Your task to perform on an android device: remove spam from my inbox in the gmail app Image 0: 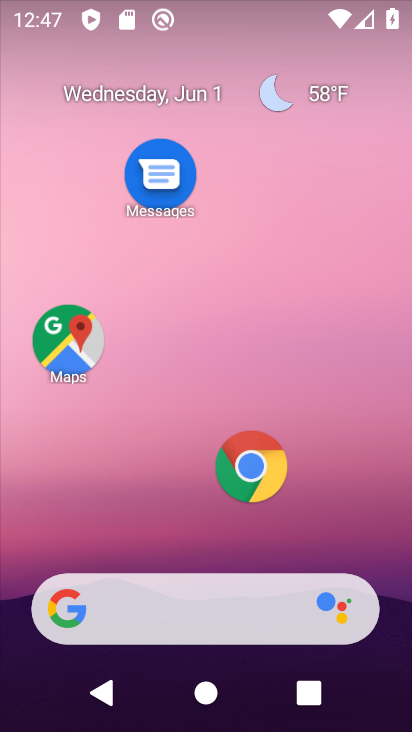
Step 0: drag from (161, 721) to (168, 166)
Your task to perform on an android device: remove spam from my inbox in the gmail app Image 1: 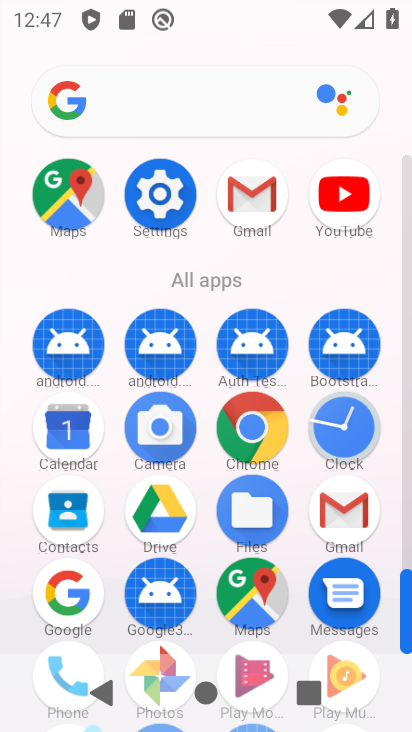
Step 1: click (343, 513)
Your task to perform on an android device: remove spam from my inbox in the gmail app Image 2: 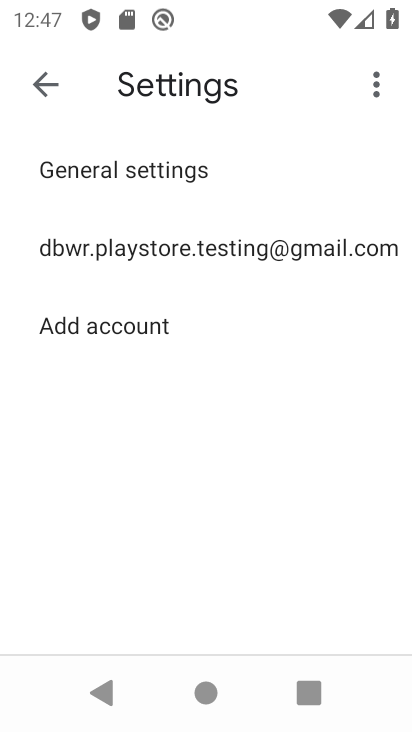
Step 2: click (185, 255)
Your task to perform on an android device: remove spam from my inbox in the gmail app Image 3: 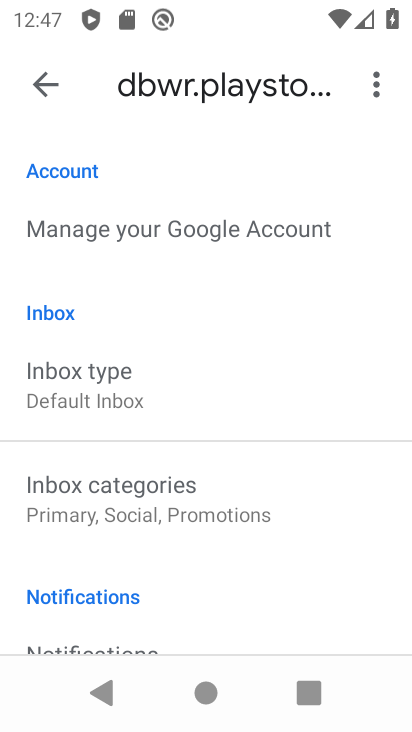
Step 3: click (47, 94)
Your task to perform on an android device: remove spam from my inbox in the gmail app Image 4: 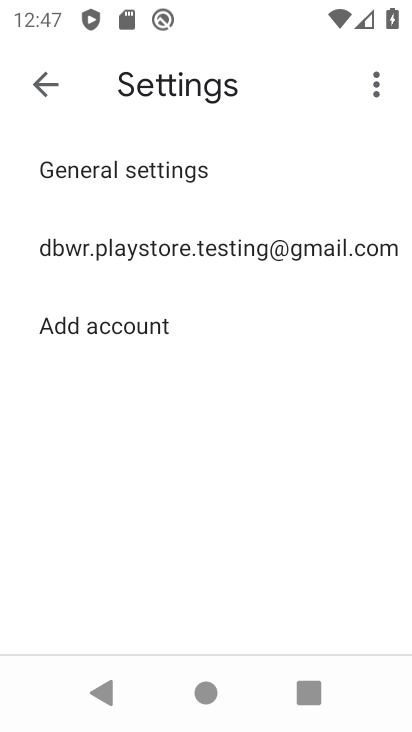
Step 4: click (46, 78)
Your task to perform on an android device: remove spam from my inbox in the gmail app Image 5: 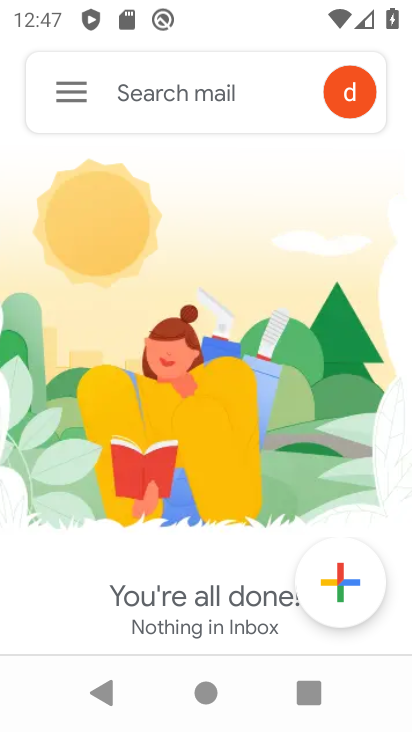
Step 5: click (90, 99)
Your task to perform on an android device: remove spam from my inbox in the gmail app Image 6: 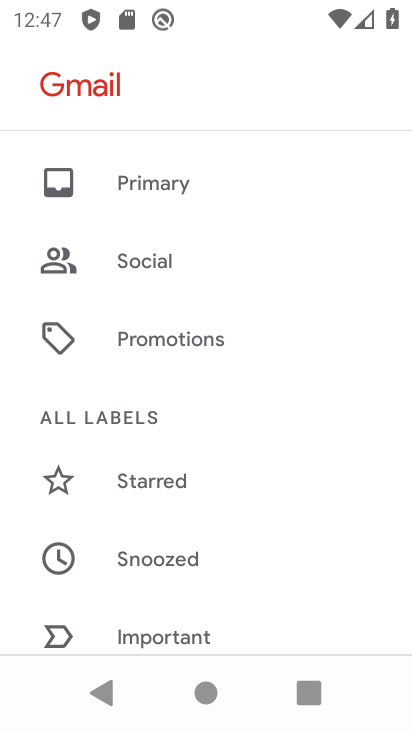
Step 6: drag from (233, 551) to (287, 185)
Your task to perform on an android device: remove spam from my inbox in the gmail app Image 7: 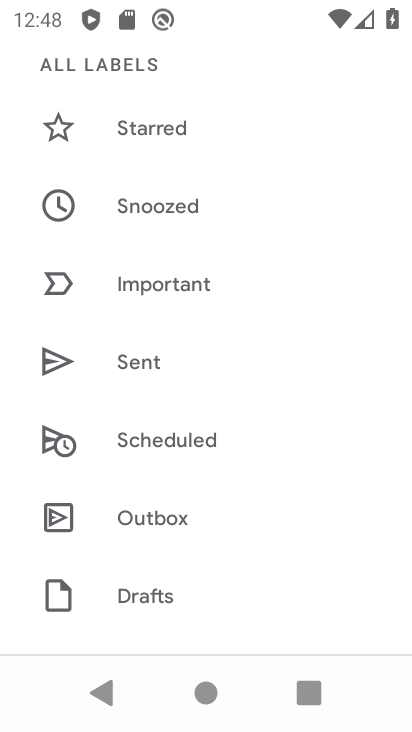
Step 7: drag from (239, 600) to (270, 270)
Your task to perform on an android device: remove spam from my inbox in the gmail app Image 8: 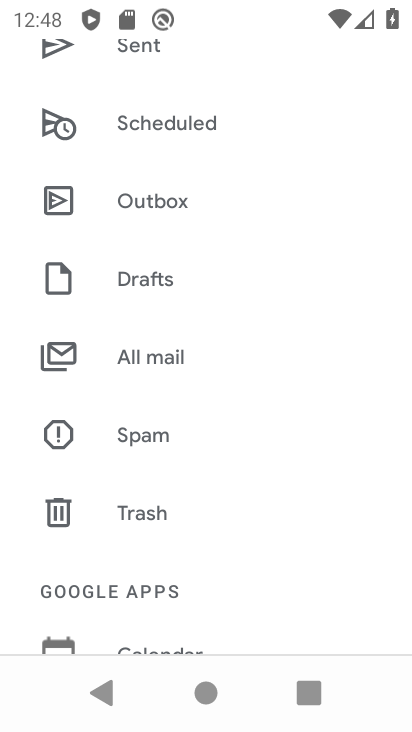
Step 8: click (108, 435)
Your task to perform on an android device: remove spam from my inbox in the gmail app Image 9: 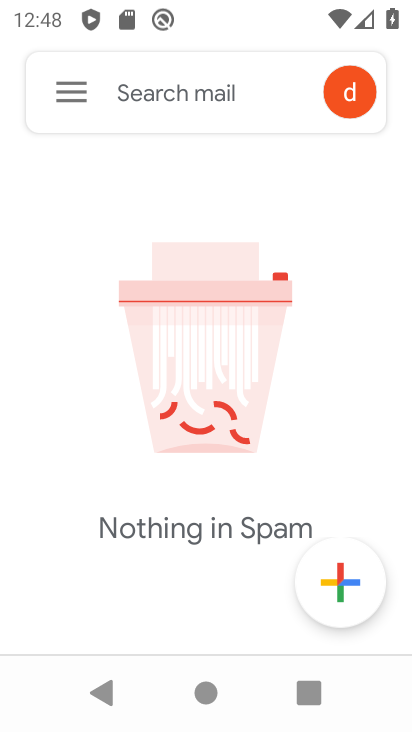
Step 9: task complete